Your task to perform on an android device: create a new album in the google photos Image 0: 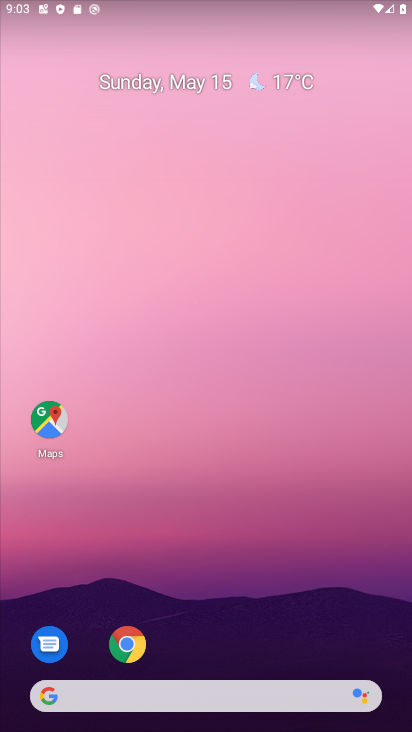
Step 0: drag from (310, 693) to (221, 213)
Your task to perform on an android device: create a new album in the google photos Image 1: 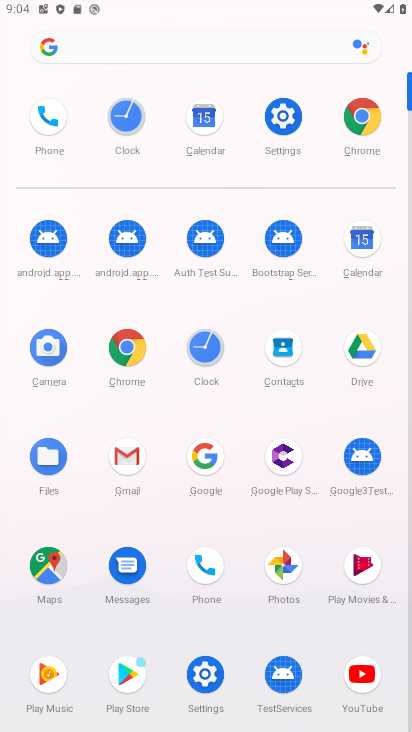
Step 1: click (283, 563)
Your task to perform on an android device: create a new album in the google photos Image 2: 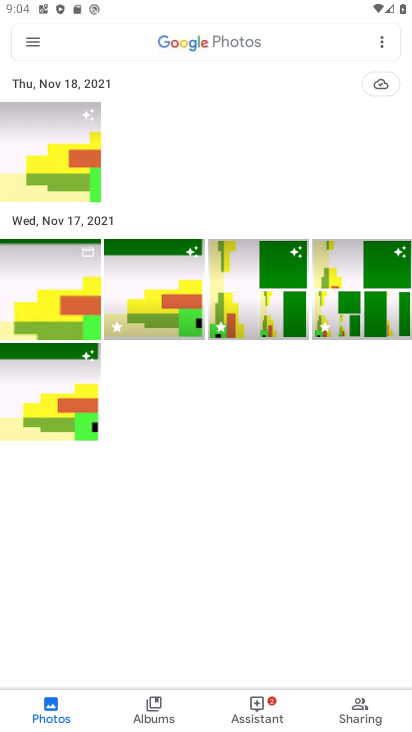
Step 2: click (41, 172)
Your task to perform on an android device: create a new album in the google photos Image 3: 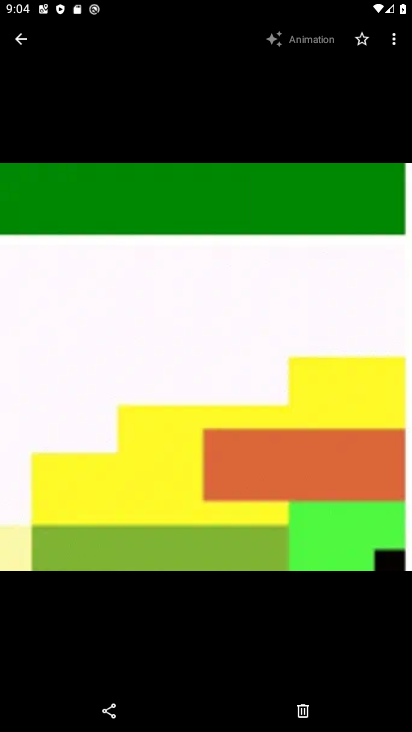
Step 3: click (384, 42)
Your task to perform on an android device: create a new album in the google photos Image 4: 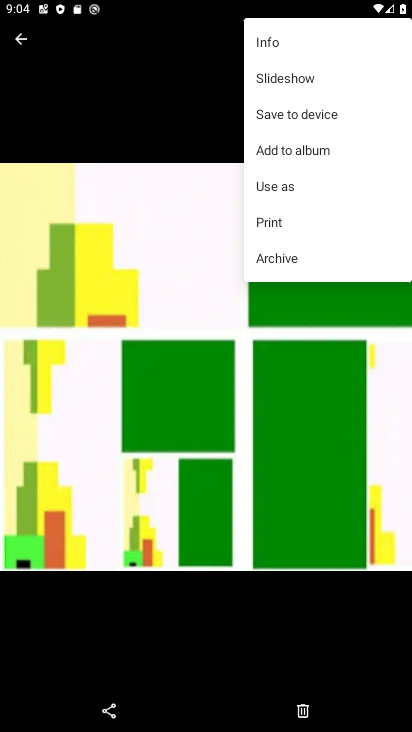
Step 4: click (292, 155)
Your task to perform on an android device: create a new album in the google photos Image 5: 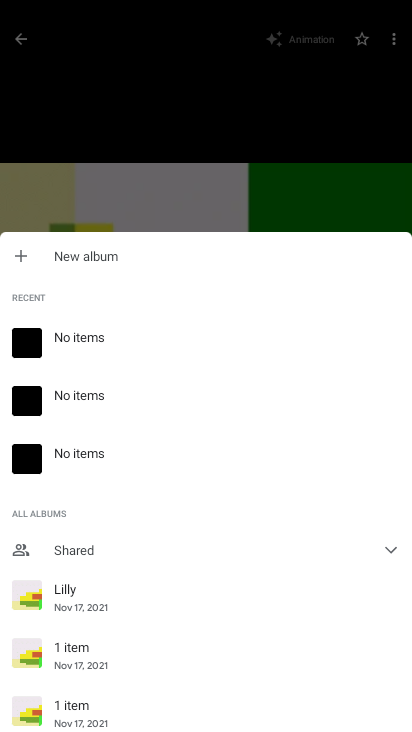
Step 5: click (59, 257)
Your task to perform on an android device: create a new album in the google photos Image 6: 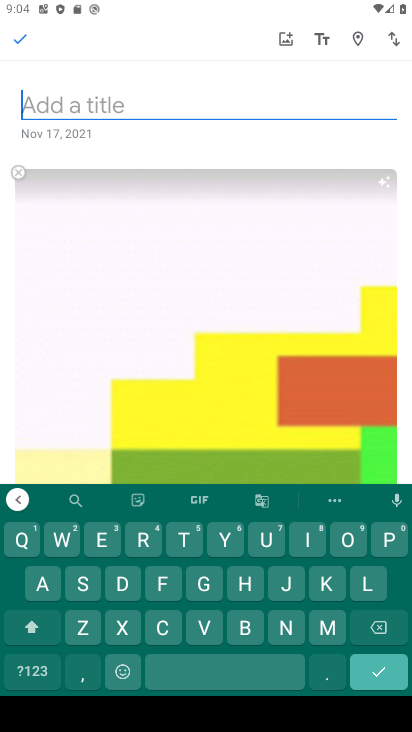
Step 6: click (138, 540)
Your task to perform on an android device: create a new album in the google photos Image 7: 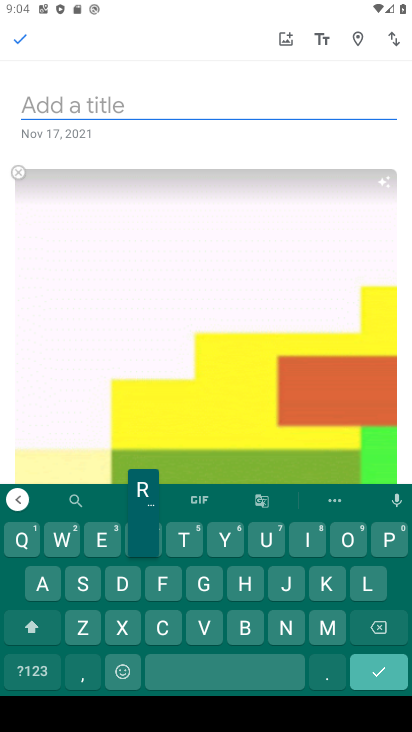
Step 7: click (215, 599)
Your task to perform on an android device: create a new album in the google photos Image 8: 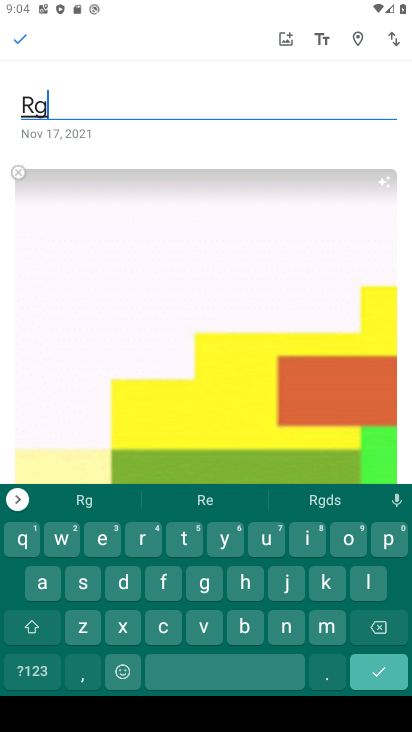
Step 8: click (46, 590)
Your task to perform on an android device: create a new album in the google photos Image 9: 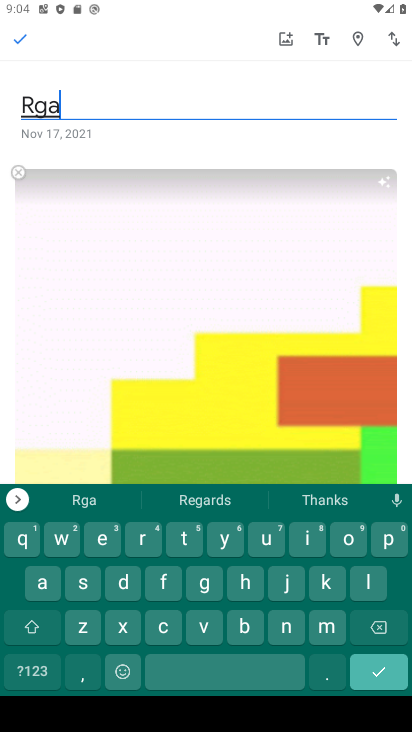
Step 9: click (158, 646)
Your task to perform on an android device: create a new album in the google photos Image 10: 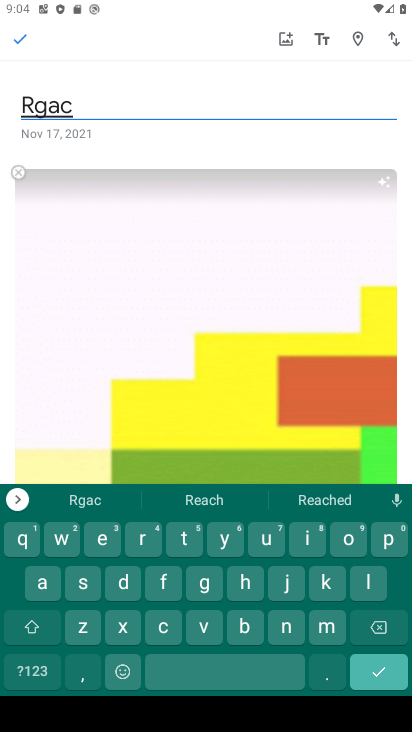
Step 10: click (22, 34)
Your task to perform on an android device: create a new album in the google photos Image 11: 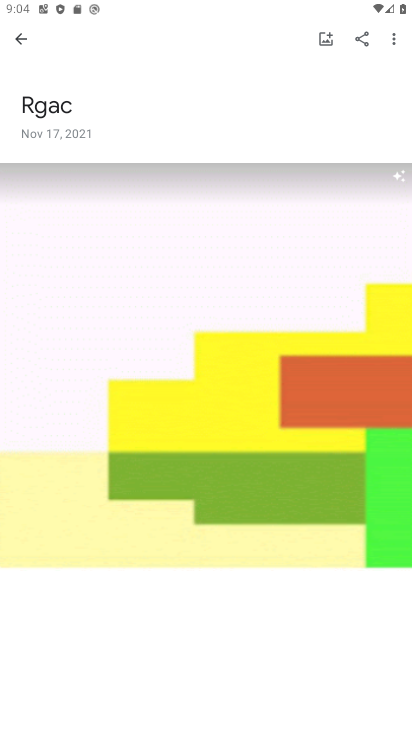
Step 11: task complete